Your task to perform on an android device: turn off notifications in google photos Image 0: 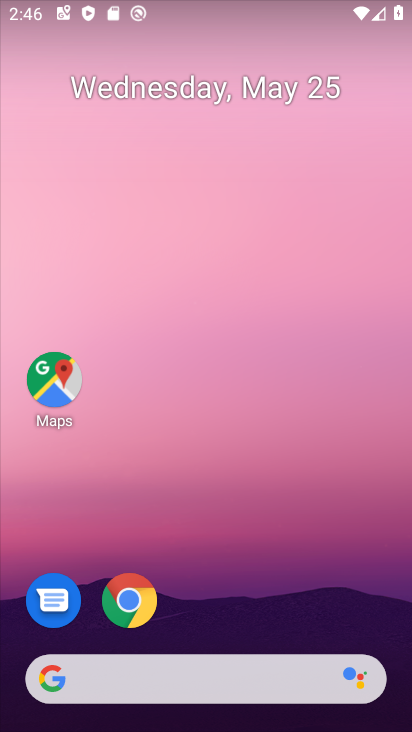
Step 0: drag from (11, 579) to (225, 106)
Your task to perform on an android device: turn off notifications in google photos Image 1: 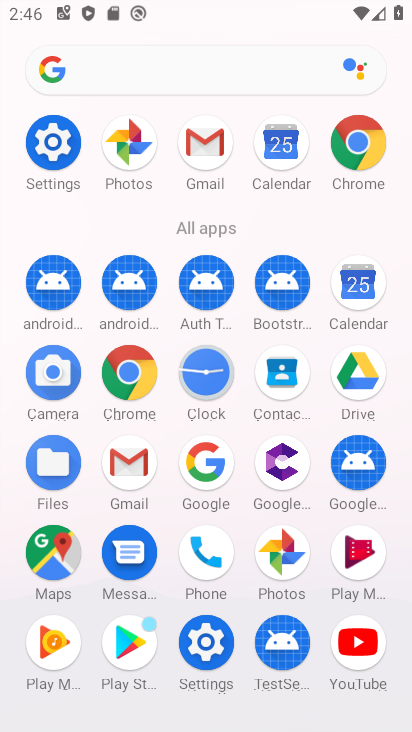
Step 1: click (134, 125)
Your task to perform on an android device: turn off notifications in google photos Image 2: 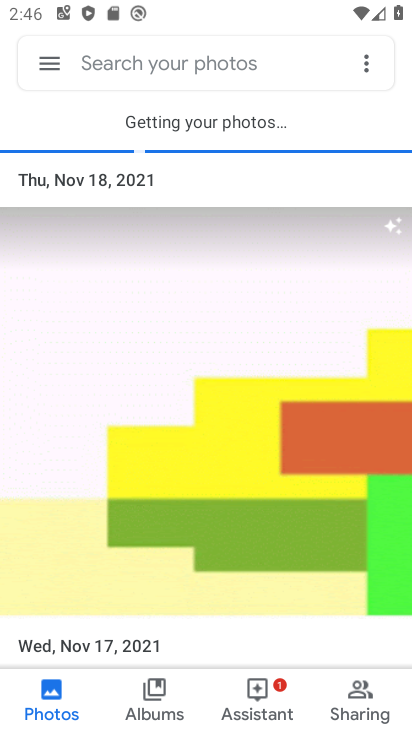
Step 2: click (53, 62)
Your task to perform on an android device: turn off notifications in google photos Image 3: 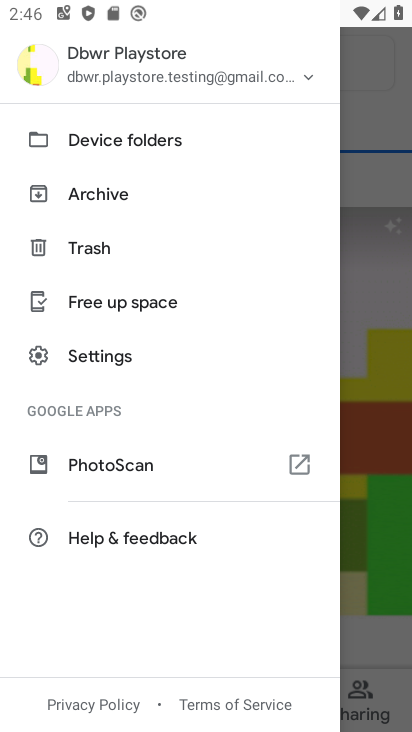
Step 3: click (111, 350)
Your task to perform on an android device: turn off notifications in google photos Image 4: 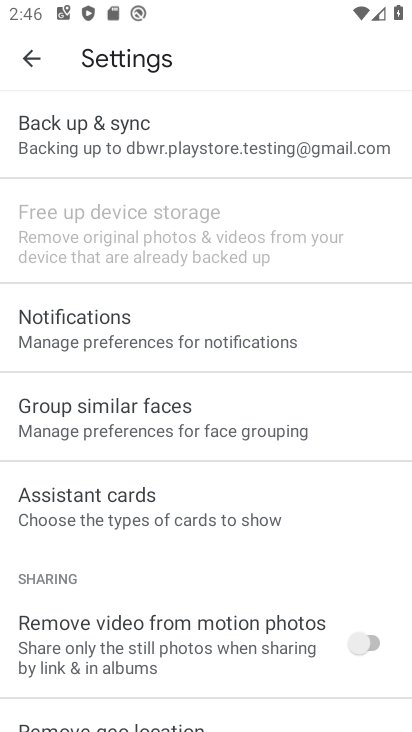
Step 4: drag from (17, 553) to (179, 193)
Your task to perform on an android device: turn off notifications in google photos Image 5: 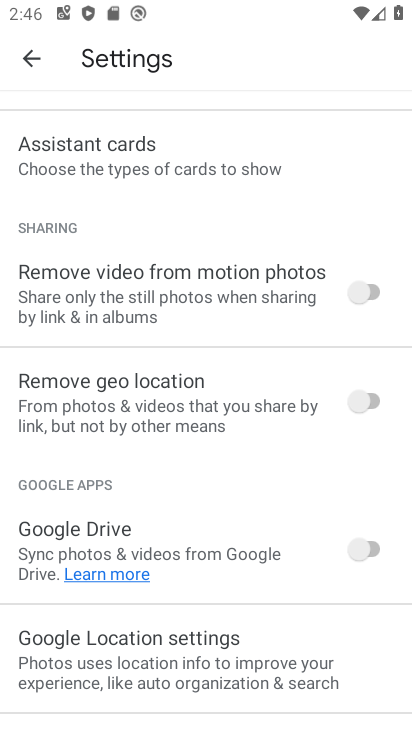
Step 5: drag from (197, 174) to (179, 581)
Your task to perform on an android device: turn off notifications in google photos Image 6: 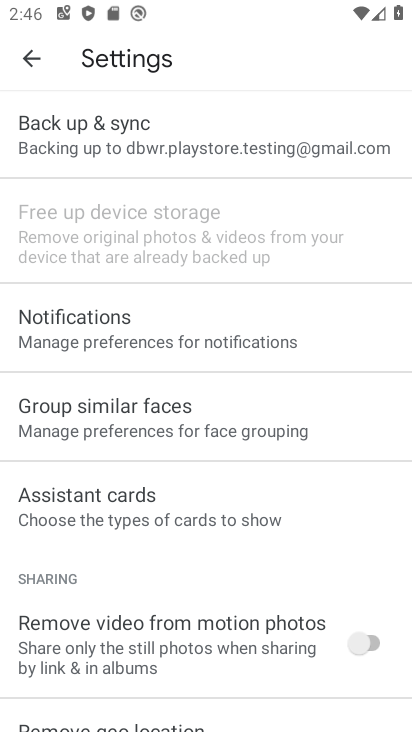
Step 6: click (139, 334)
Your task to perform on an android device: turn off notifications in google photos Image 7: 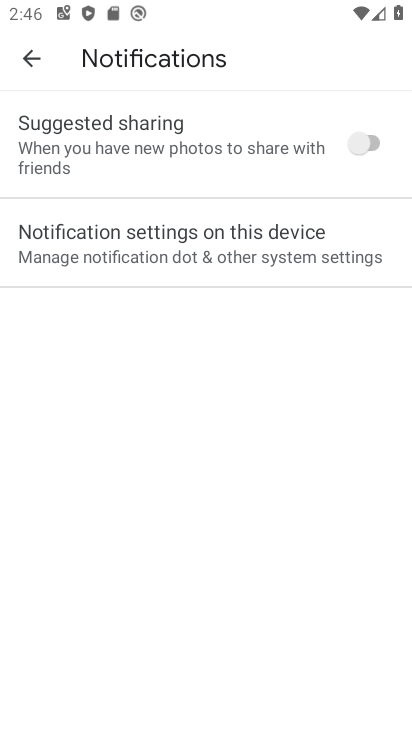
Step 7: click (150, 252)
Your task to perform on an android device: turn off notifications in google photos Image 8: 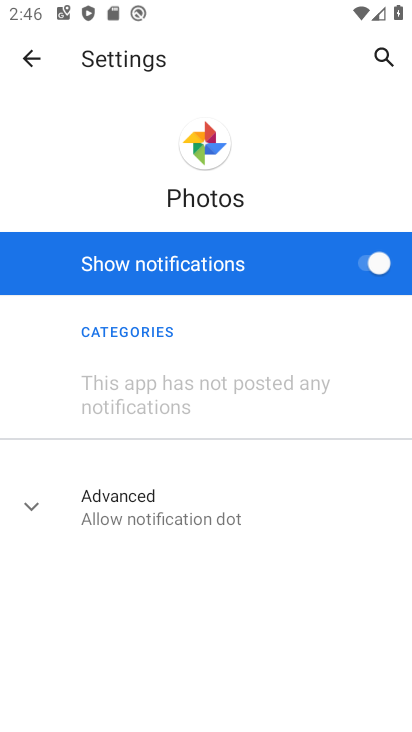
Step 8: click (379, 263)
Your task to perform on an android device: turn off notifications in google photos Image 9: 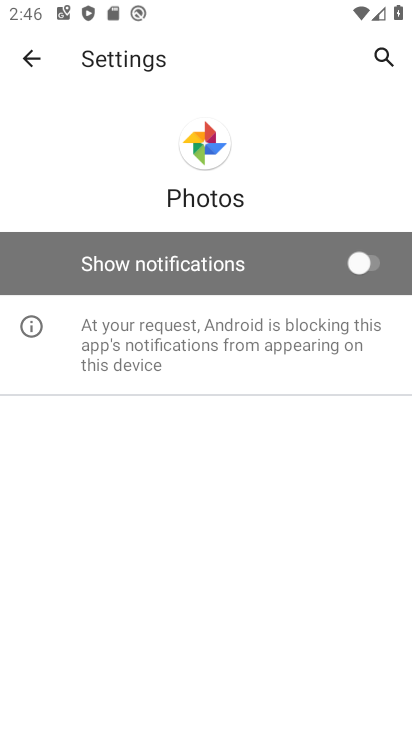
Step 9: task complete